Your task to perform on an android device: Turn on the flashlight Image 0: 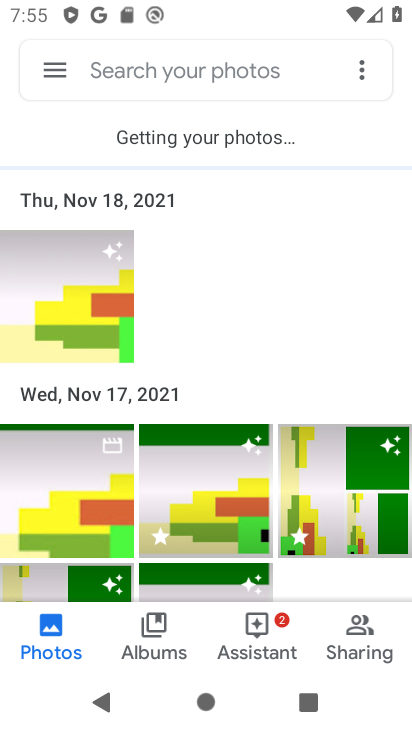
Step 0: press back button
Your task to perform on an android device: Turn on the flashlight Image 1: 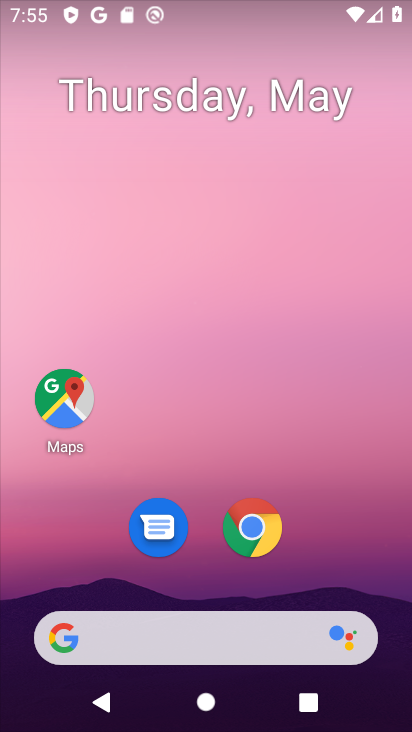
Step 1: drag from (31, 504) to (145, 237)
Your task to perform on an android device: Turn on the flashlight Image 2: 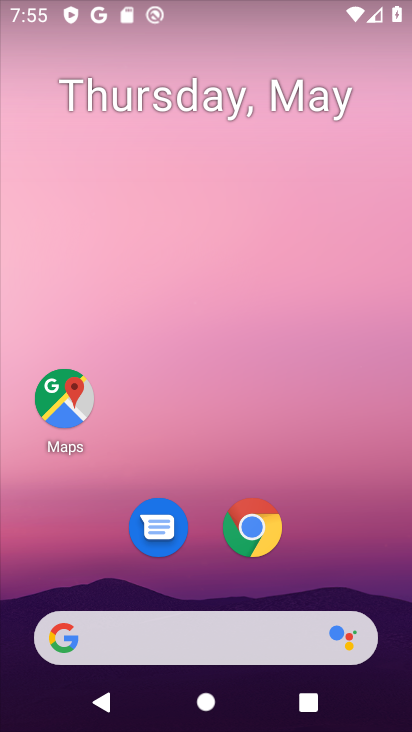
Step 2: drag from (23, 586) to (236, 163)
Your task to perform on an android device: Turn on the flashlight Image 3: 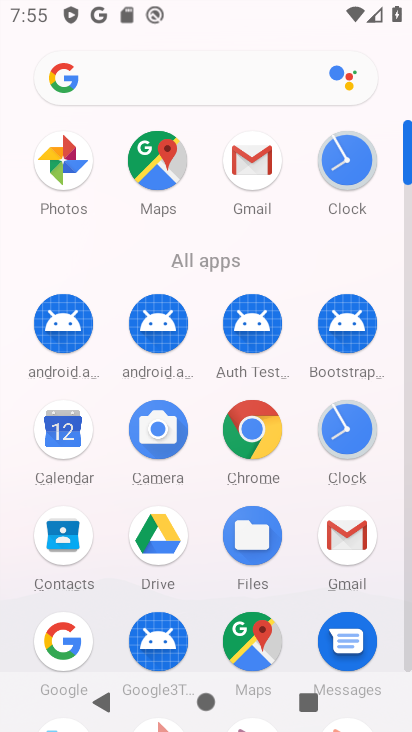
Step 3: drag from (36, 641) to (239, 102)
Your task to perform on an android device: Turn on the flashlight Image 4: 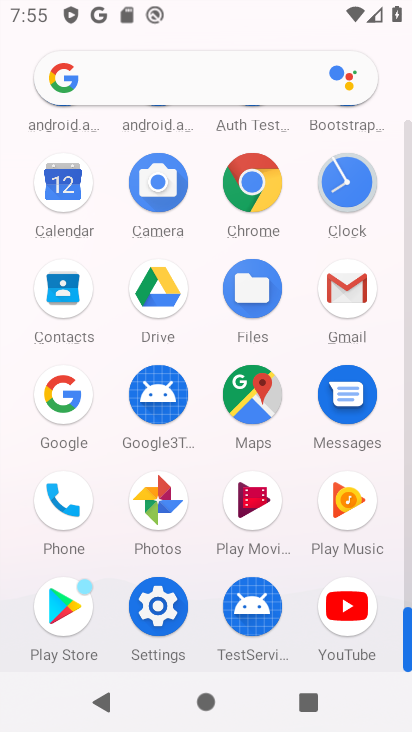
Step 4: click (148, 608)
Your task to perform on an android device: Turn on the flashlight Image 5: 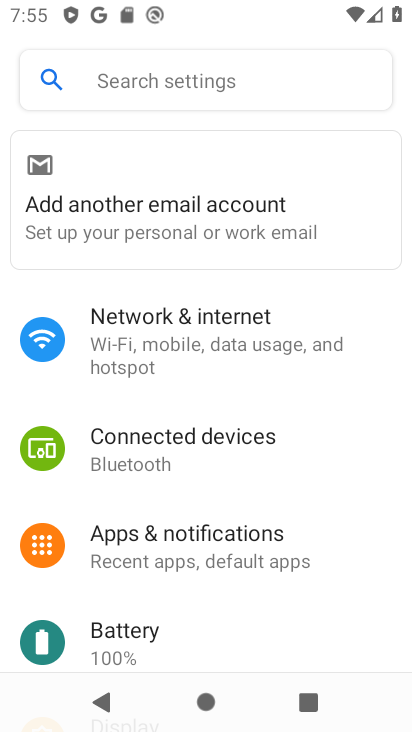
Step 5: click (130, 542)
Your task to perform on an android device: Turn on the flashlight Image 6: 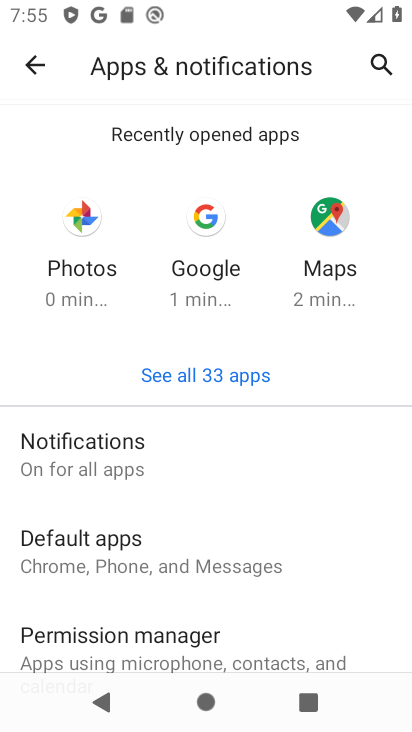
Step 6: task complete